Your task to perform on an android device: check google app version Image 0: 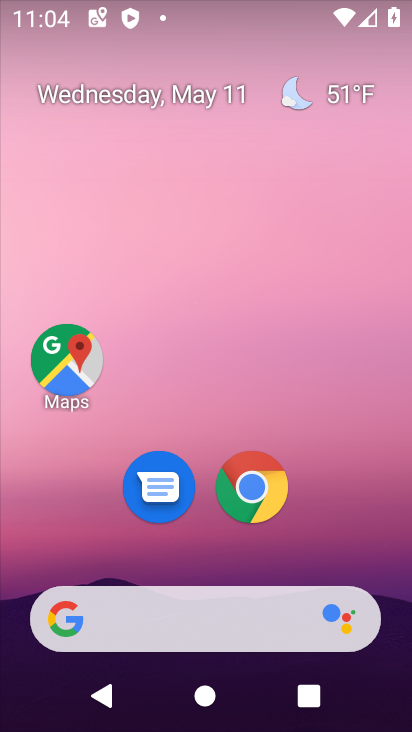
Step 0: drag from (315, 539) to (259, 169)
Your task to perform on an android device: check google app version Image 1: 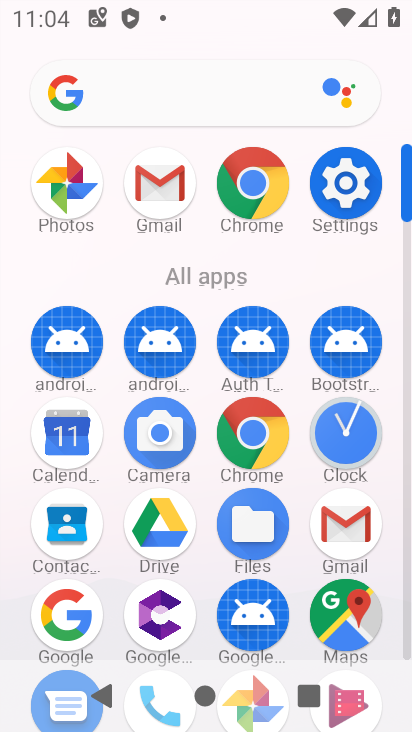
Step 1: click (65, 609)
Your task to perform on an android device: check google app version Image 2: 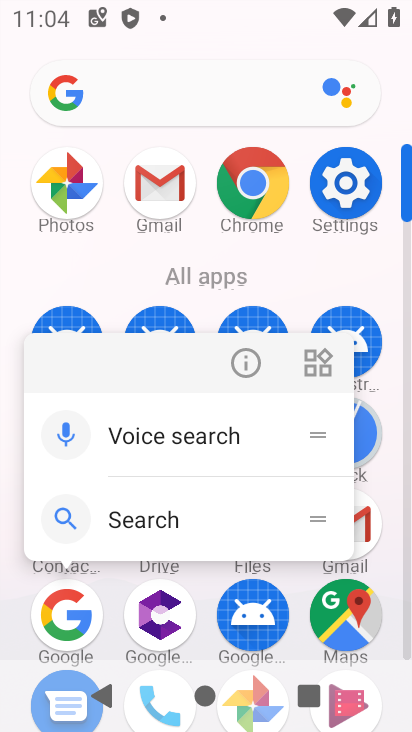
Step 2: click (245, 362)
Your task to perform on an android device: check google app version Image 3: 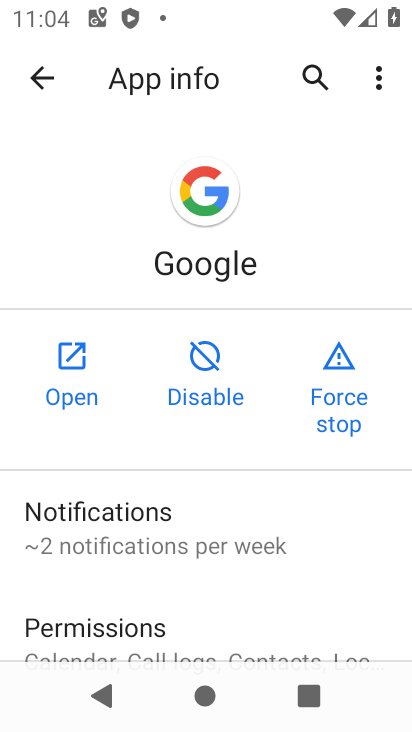
Step 3: drag from (300, 536) to (239, 222)
Your task to perform on an android device: check google app version Image 4: 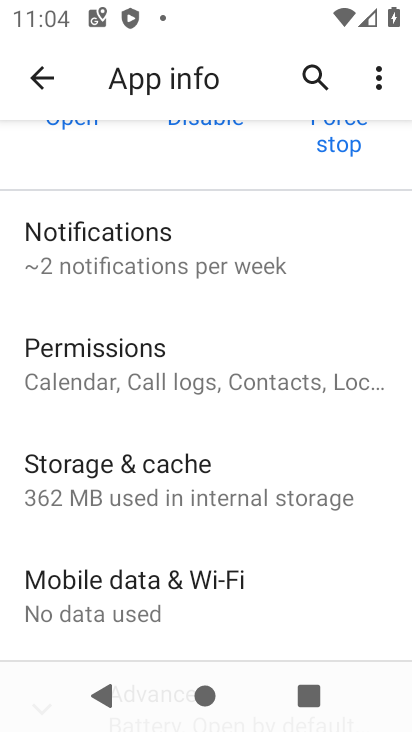
Step 4: drag from (292, 547) to (219, 162)
Your task to perform on an android device: check google app version Image 5: 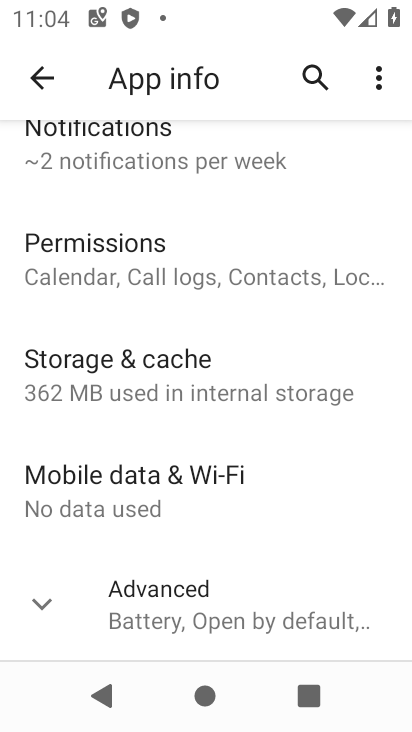
Step 5: click (245, 599)
Your task to perform on an android device: check google app version Image 6: 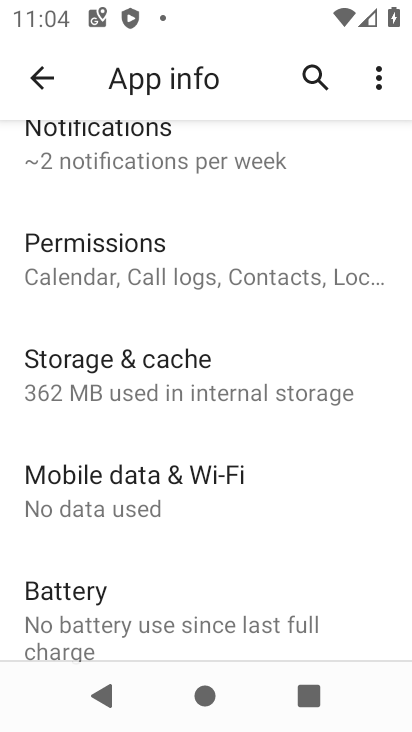
Step 6: task complete